Your task to perform on an android device: Open the map Image 0: 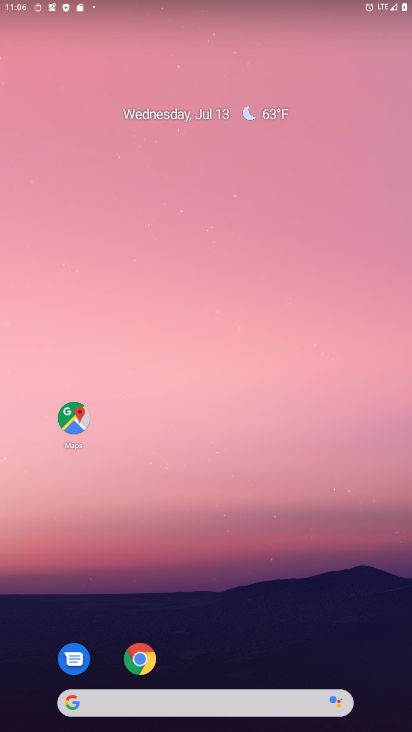
Step 0: drag from (288, 653) to (246, 175)
Your task to perform on an android device: Open the map Image 1: 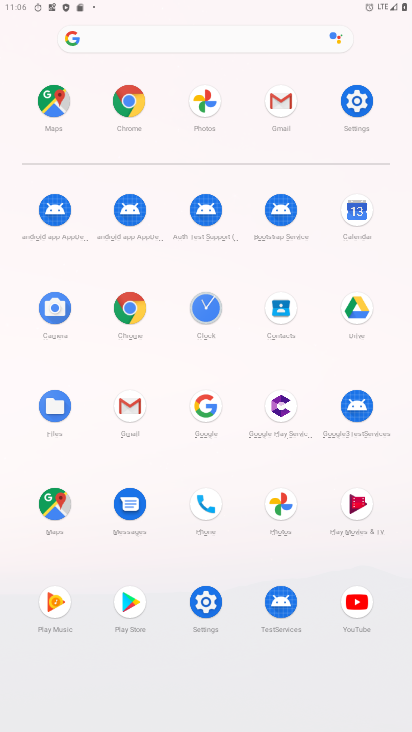
Step 1: click (48, 95)
Your task to perform on an android device: Open the map Image 2: 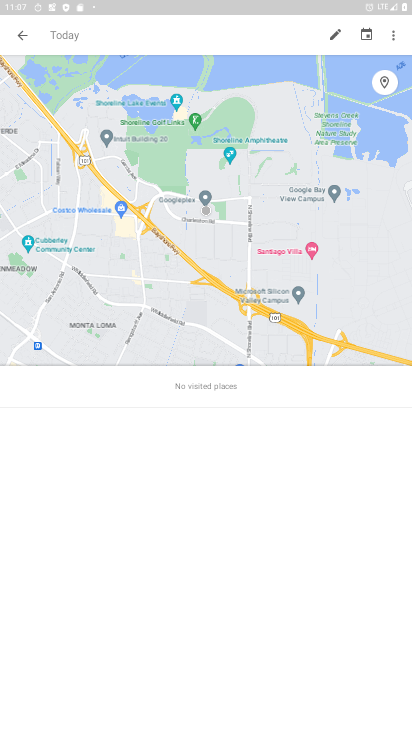
Step 2: task complete